Your task to perform on an android device: Turn off the flashlight Image 0: 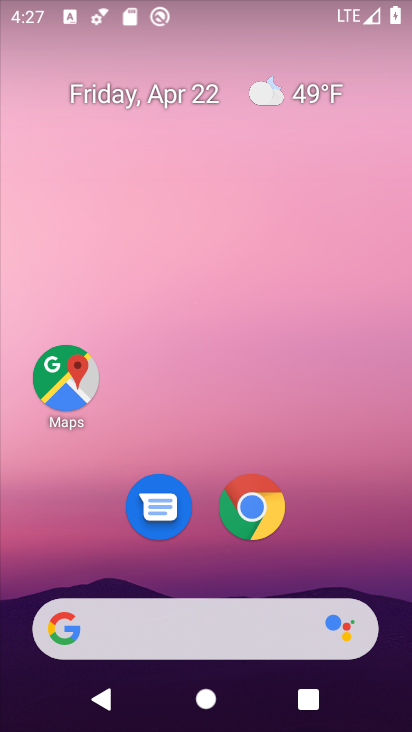
Step 0: drag from (238, 8) to (295, 519)
Your task to perform on an android device: Turn off the flashlight Image 1: 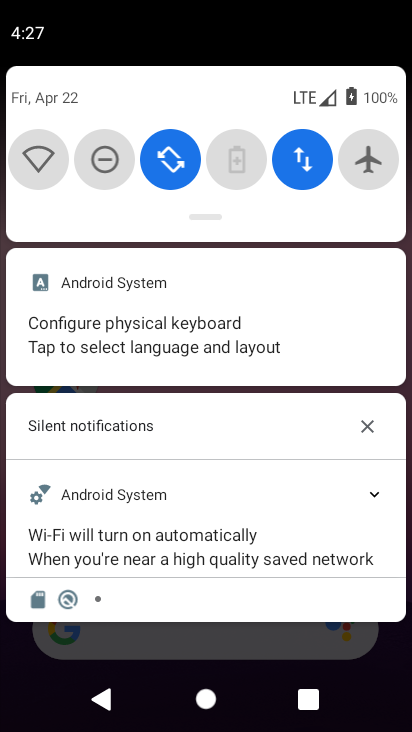
Step 1: drag from (208, 204) to (219, 624)
Your task to perform on an android device: Turn off the flashlight Image 2: 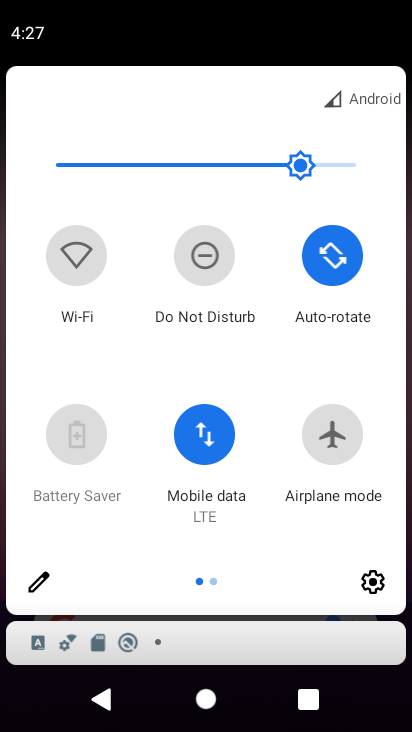
Step 2: click (39, 580)
Your task to perform on an android device: Turn off the flashlight Image 3: 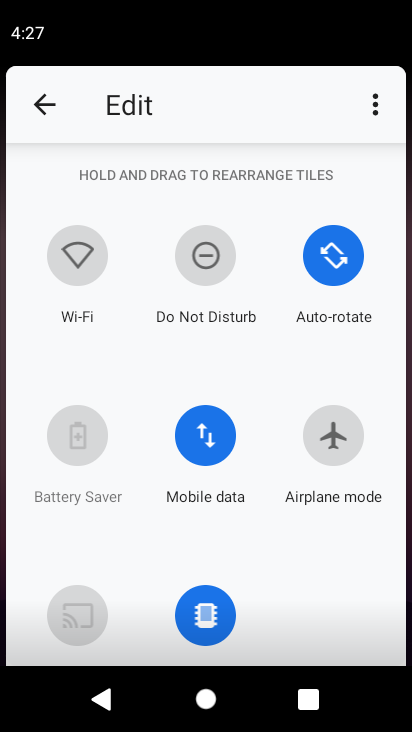
Step 3: task complete